Your task to perform on an android device: allow notifications from all sites in the chrome app Image 0: 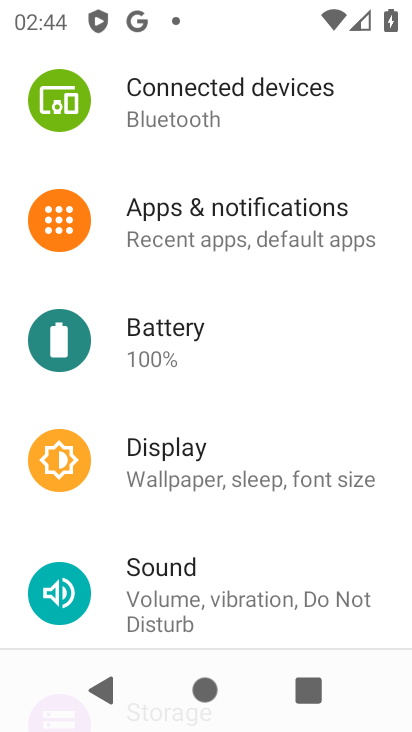
Step 0: press home button
Your task to perform on an android device: allow notifications from all sites in the chrome app Image 1: 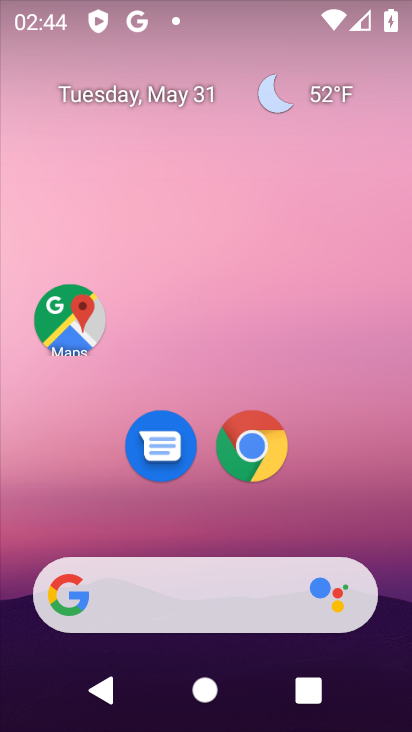
Step 1: click (254, 443)
Your task to perform on an android device: allow notifications from all sites in the chrome app Image 2: 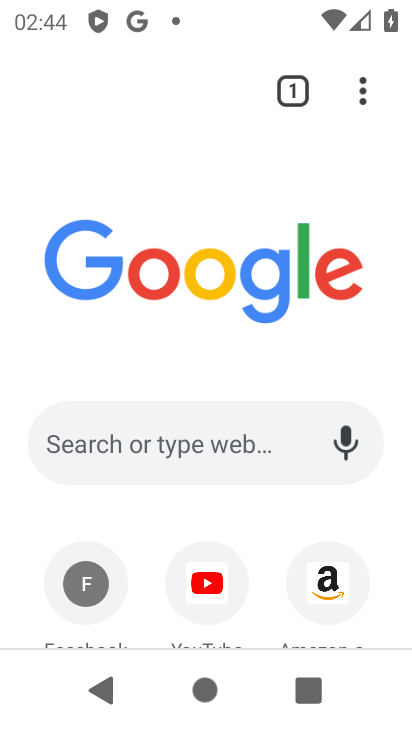
Step 2: click (364, 87)
Your task to perform on an android device: allow notifications from all sites in the chrome app Image 3: 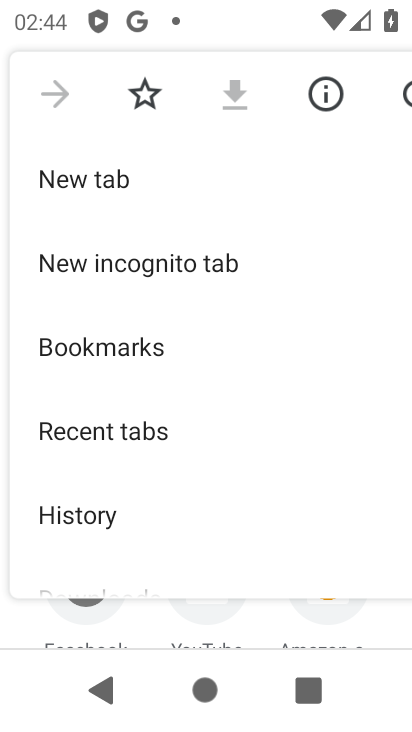
Step 3: drag from (148, 396) to (171, 318)
Your task to perform on an android device: allow notifications from all sites in the chrome app Image 4: 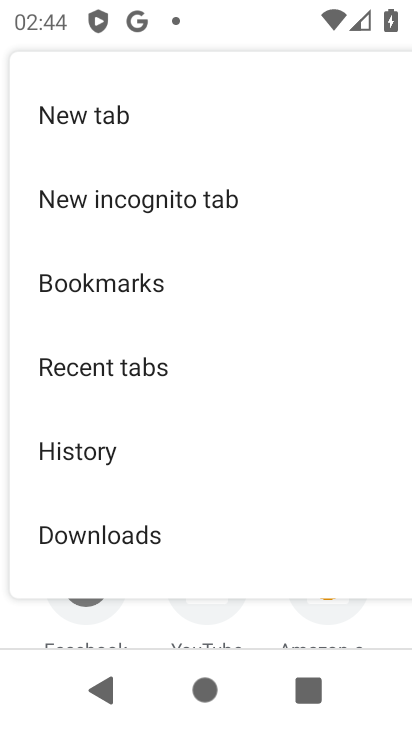
Step 4: drag from (160, 458) to (192, 384)
Your task to perform on an android device: allow notifications from all sites in the chrome app Image 5: 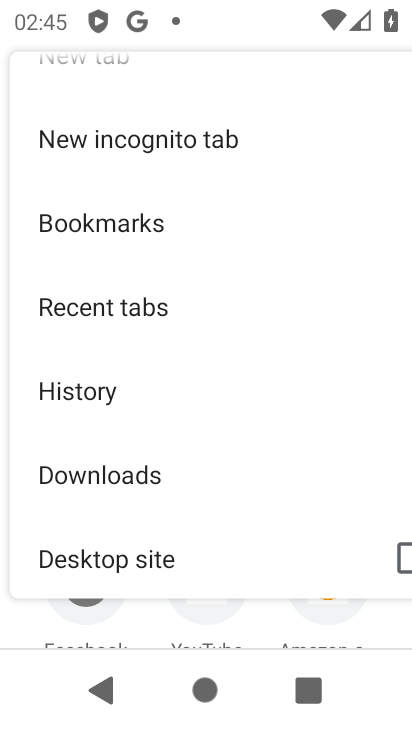
Step 5: drag from (155, 508) to (212, 431)
Your task to perform on an android device: allow notifications from all sites in the chrome app Image 6: 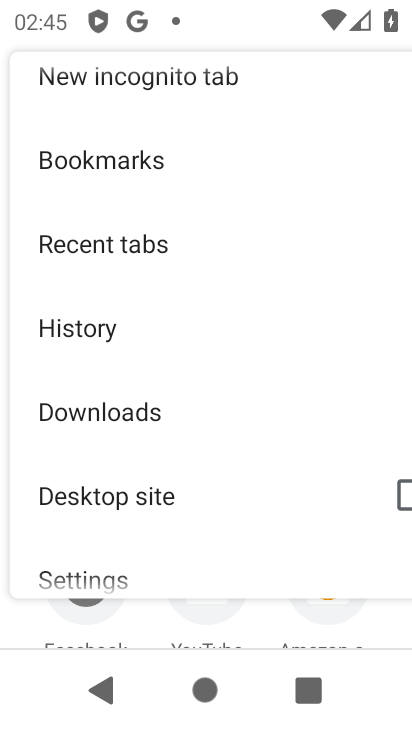
Step 6: drag from (153, 527) to (254, 418)
Your task to perform on an android device: allow notifications from all sites in the chrome app Image 7: 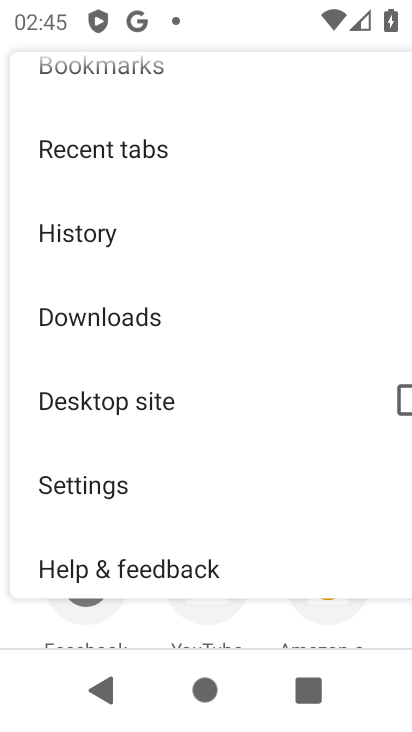
Step 7: click (83, 499)
Your task to perform on an android device: allow notifications from all sites in the chrome app Image 8: 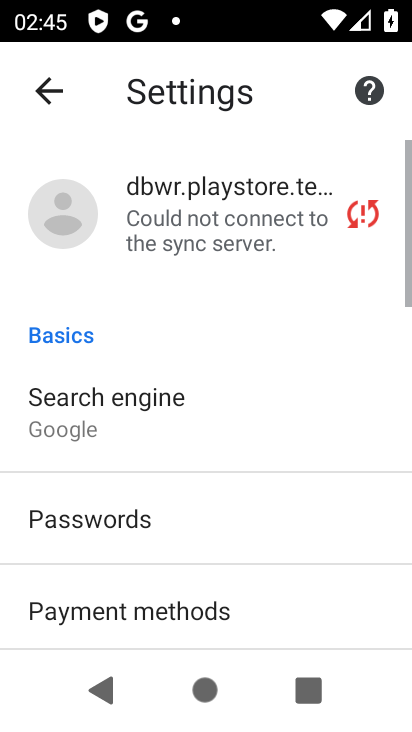
Step 8: drag from (201, 525) to (240, 408)
Your task to perform on an android device: allow notifications from all sites in the chrome app Image 9: 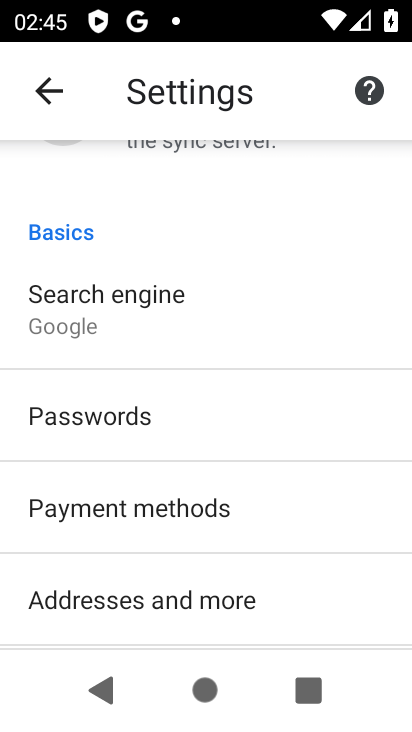
Step 9: drag from (218, 513) to (254, 419)
Your task to perform on an android device: allow notifications from all sites in the chrome app Image 10: 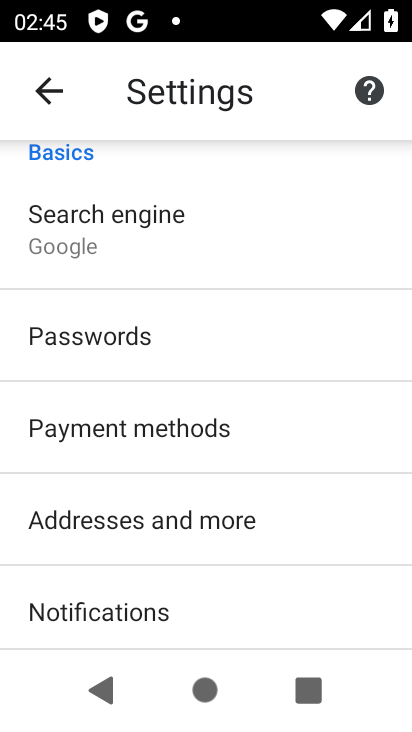
Step 10: drag from (201, 501) to (257, 410)
Your task to perform on an android device: allow notifications from all sites in the chrome app Image 11: 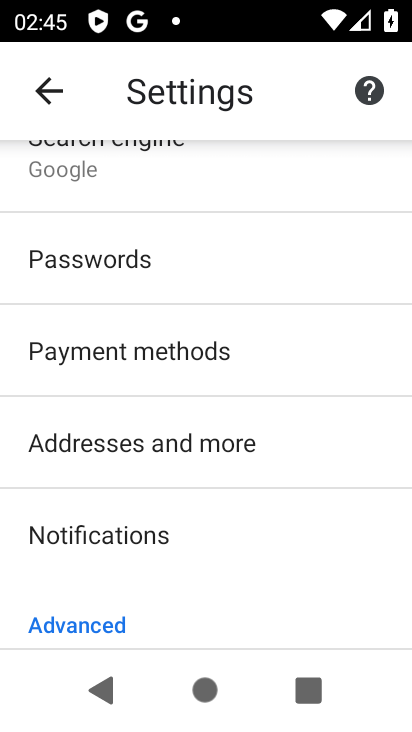
Step 11: drag from (165, 552) to (236, 443)
Your task to perform on an android device: allow notifications from all sites in the chrome app Image 12: 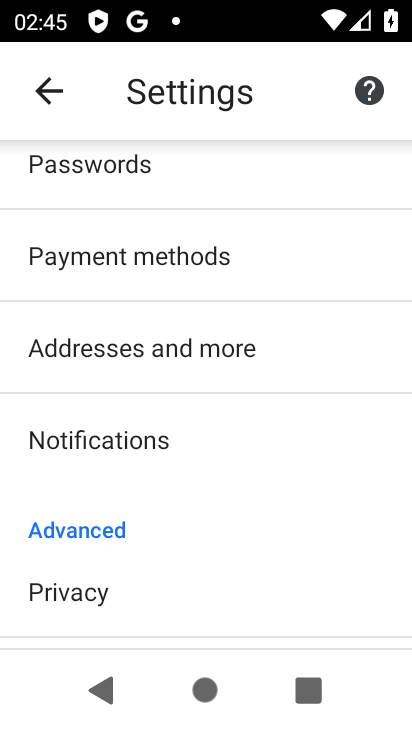
Step 12: drag from (166, 530) to (253, 421)
Your task to perform on an android device: allow notifications from all sites in the chrome app Image 13: 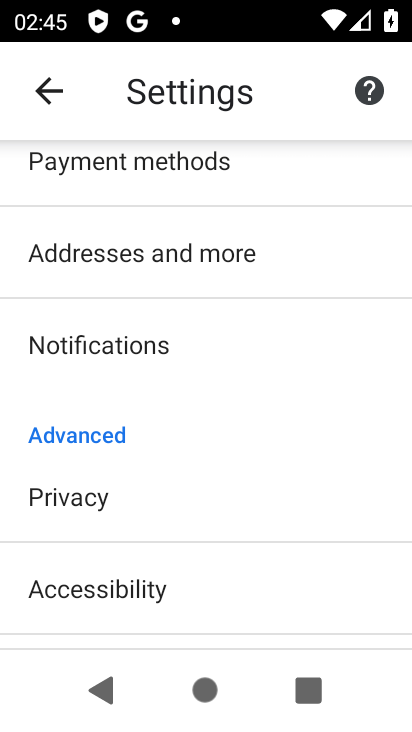
Step 13: drag from (164, 547) to (235, 427)
Your task to perform on an android device: allow notifications from all sites in the chrome app Image 14: 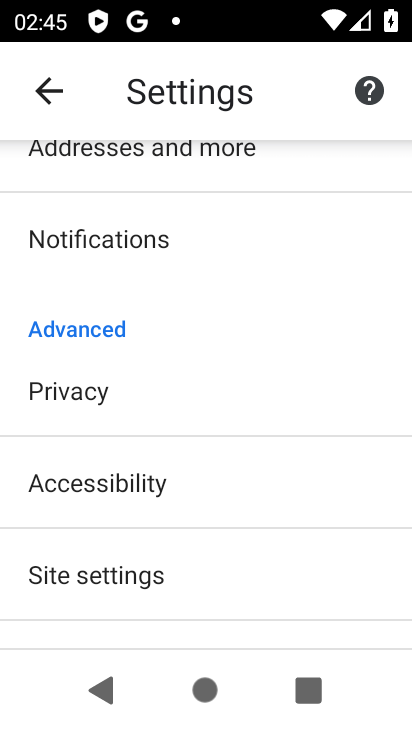
Step 14: click (119, 574)
Your task to perform on an android device: allow notifications from all sites in the chrome app Image 15: 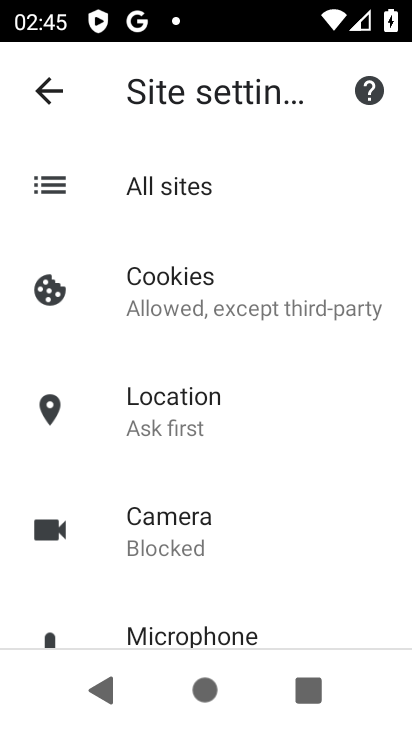
Step 15: drag from (180, 496) to (204, 411)
Your task to perform on an android device: allow notifications from all sites in the chrome app Image 16: 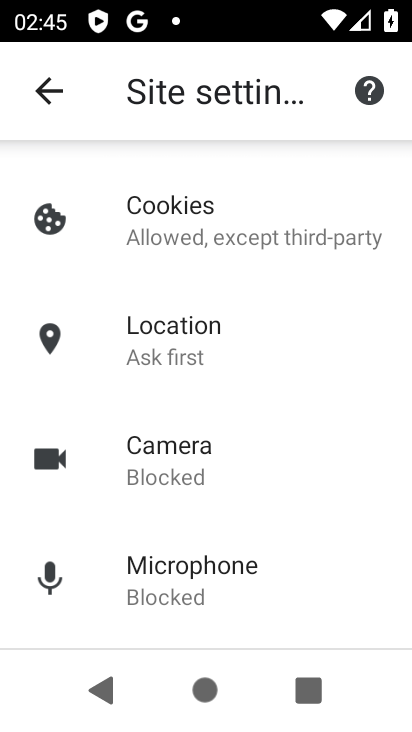
Step 16: drag from (174, 516) to (224, 433)
Your task to perform on an android device: allow notifications from all sites in the chrome app Image 17: 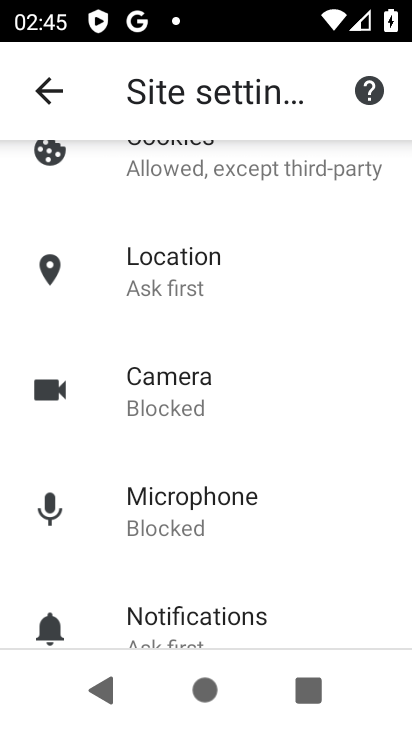
Step 17: drag from (165, 577) to (250, 476)
Your task to perform on an android device: allow notifications from all sites in the chrome app Image 18: 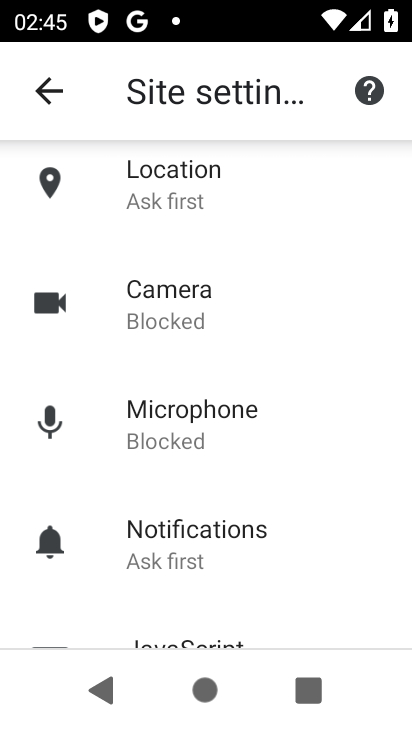
Step 18: click (231, 524)
Your task to perform on an android device: allow notifications from all sites in the chrome app Image 19: 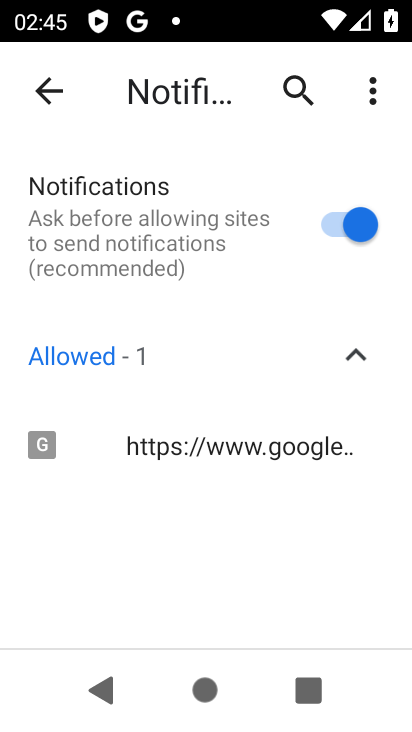
Step 19: task complete